Your task to perform on an android device: add a label to a message in the gmail app Image 0: 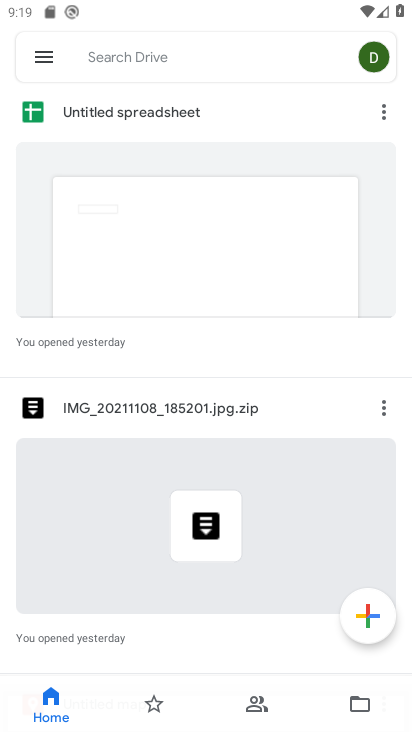
Step 0: press home button
Your task to perform on an android device: add a label to a message in the gmail app Image 1: 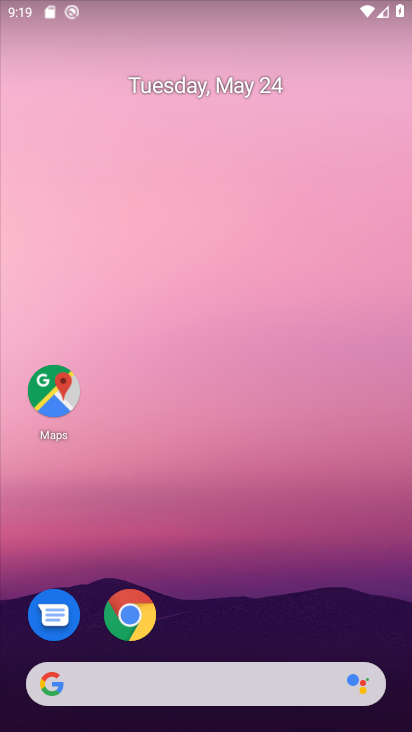
Step 1: drag from (373, 612) to (380, 220)
Your task to perform on an android device: add a label to a message in the gmail app Image 2: 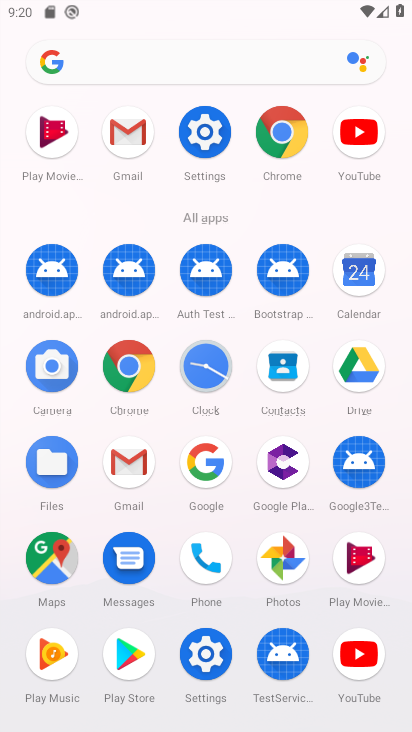
Step 2: click (128, 471)
Your task to perform on an android device: add a label to a message in the gmail app Image 3: 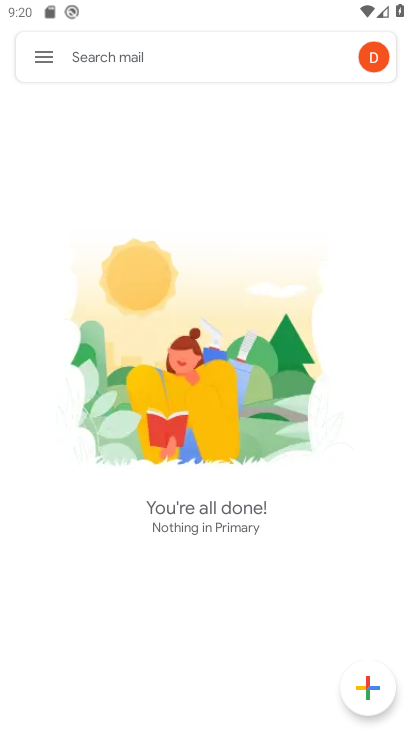
Step 3: click (51, 53)
Your task to perform on an android device: add a label to a message in the gmail app Image 4: 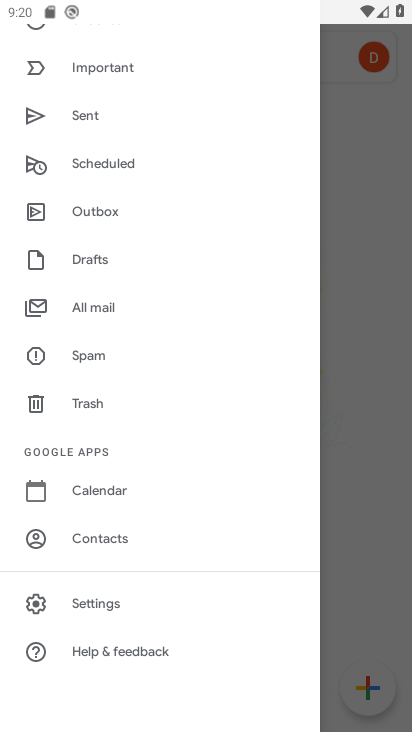
Step 4: drag from (239, 501) to (240, 360)
Your task to perform on an android device: add a label to a message in the gmail app Image 5: 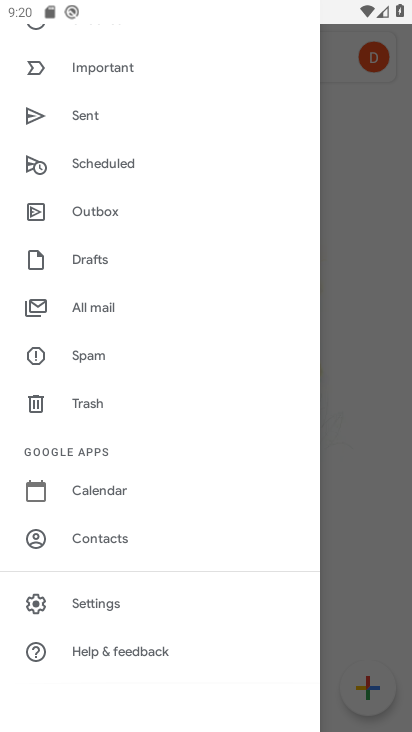
Step 5: drag from (253, 221) to (242, 336)
Your task to perform on an android device: add a label to a message in the gmail app Image 6: 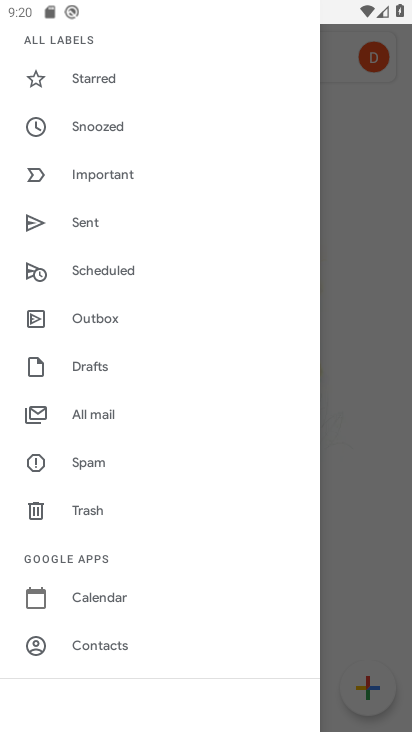
Step 6: drag from (247, 230) to (242, 397)
Your task to perform on an android device: add a label to a message in the gmail app Image 7: 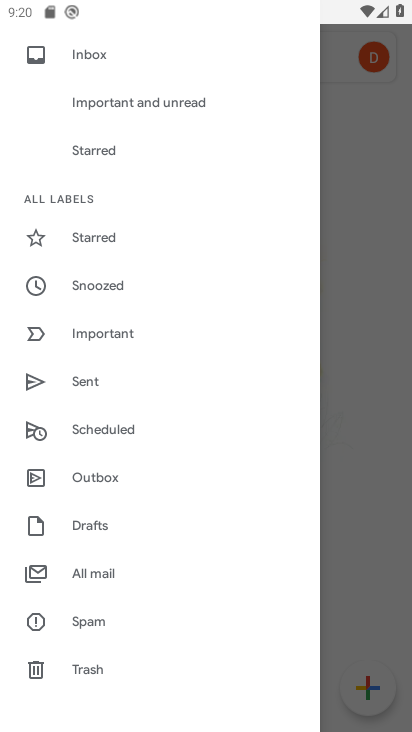
Step 7: drag from (228, 248) to (226, 386)
Your task to perform on an android device: add a label to a message in the gmail app Image 8: 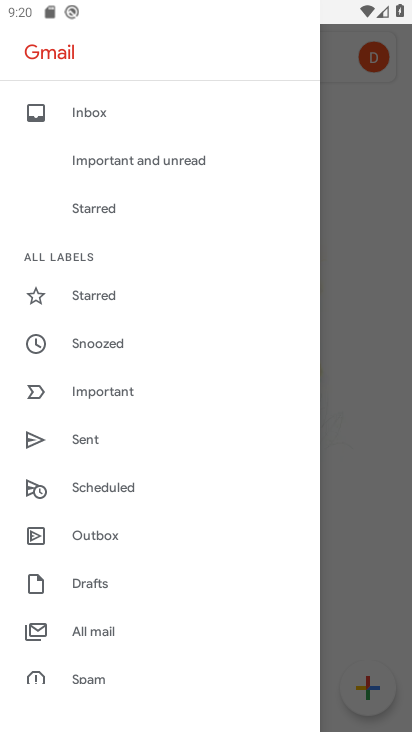
Step 8: click (133, 117)
Your task to perform on an android device: add a label to a message in the gmail app Image 9: 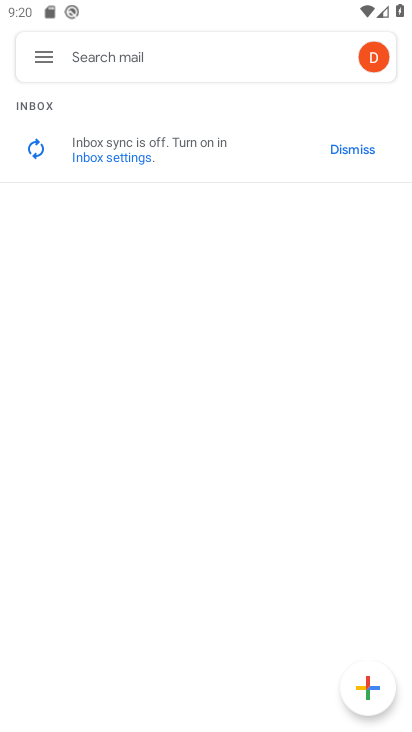
Step 9: task complete